Your task to perform on an android device: check data usage Image 0: 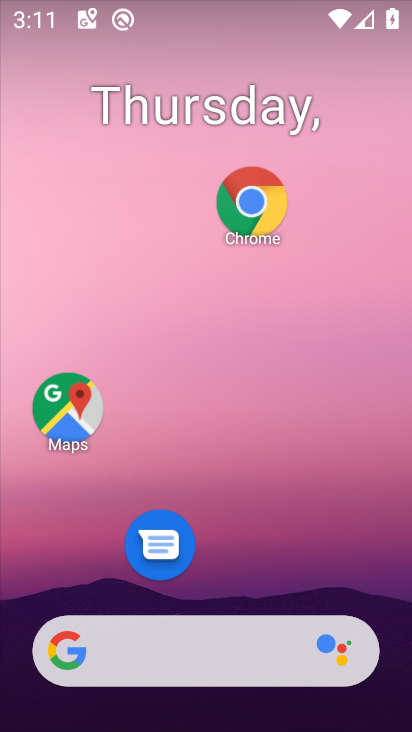
Step 0: drag from (239, 565) to (239, 301)
Your task to perform on an android device: check data usage Image 1: 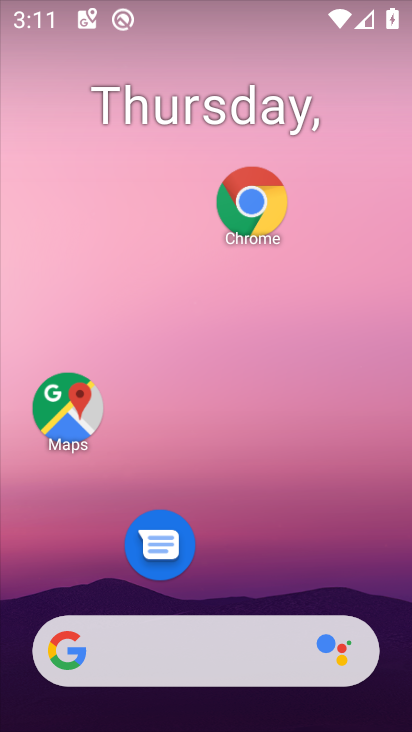
Step 1: drag from (153, 614) to (197, 296)
Your task to perform on an android device: check data usage Image 2: 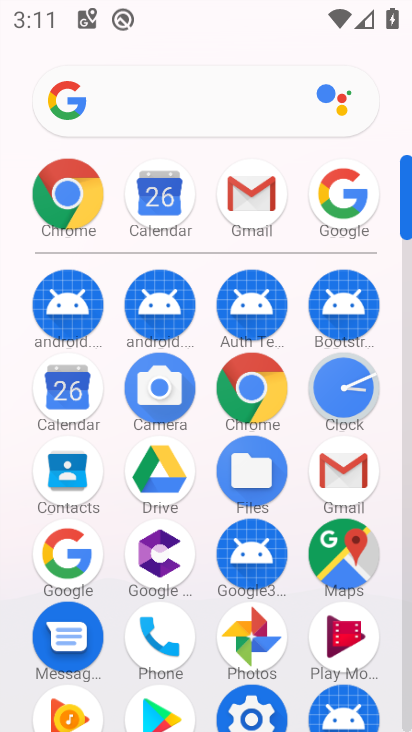
Step 2: click (271, 711)
Your task to perform on an android device: check data usage Image 3: 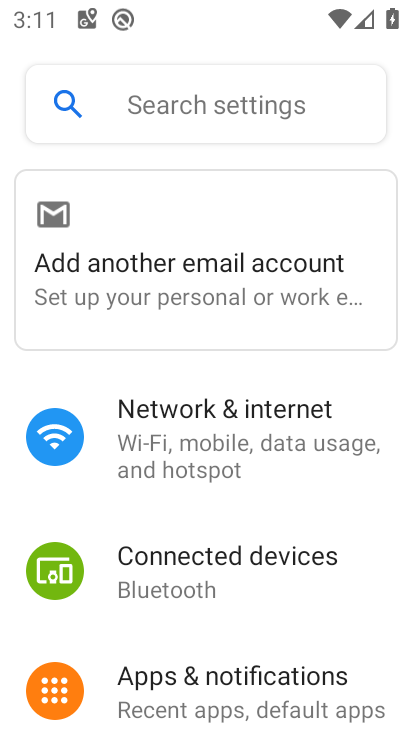
Step 3: click (247, 456)
Your task to perform on an android device: check data usage Image 4: 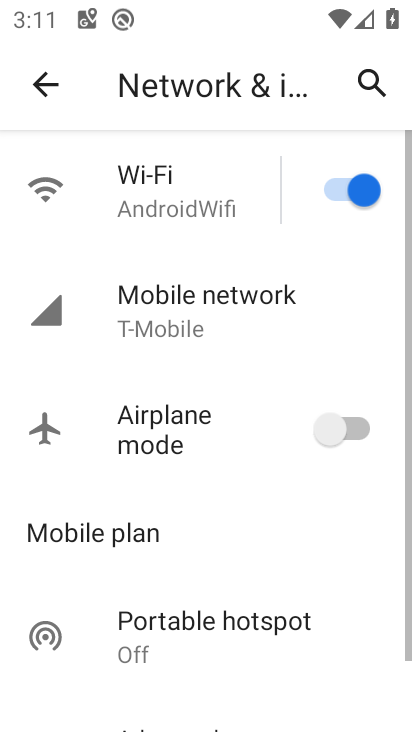
Step 4: click (220, 310)
Your task to perform on an android device: check data usage Image 5: 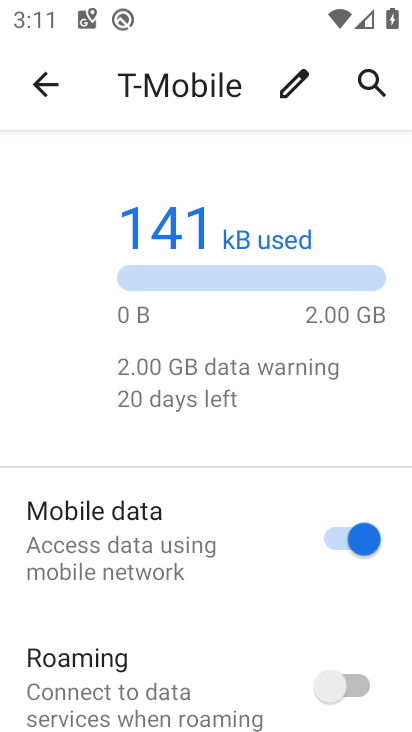
Step 5: task complete